Your task to perform on an android device: allow notifications from all sites in the chrome app Image 0: 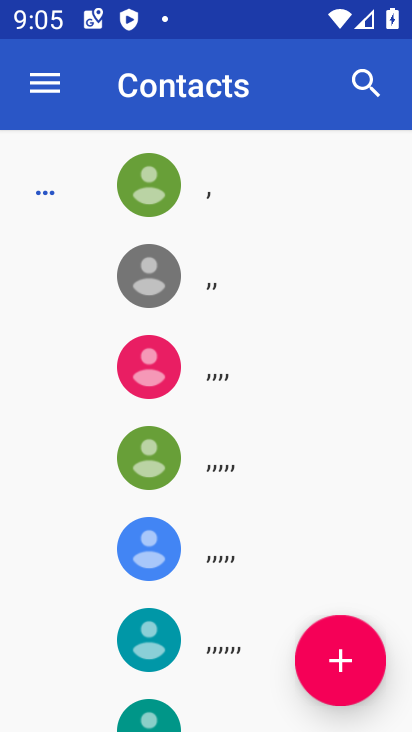
Step 0: press home button
Your task to perform on an android device: allow notifications from all sites in the chrome app Image 1: 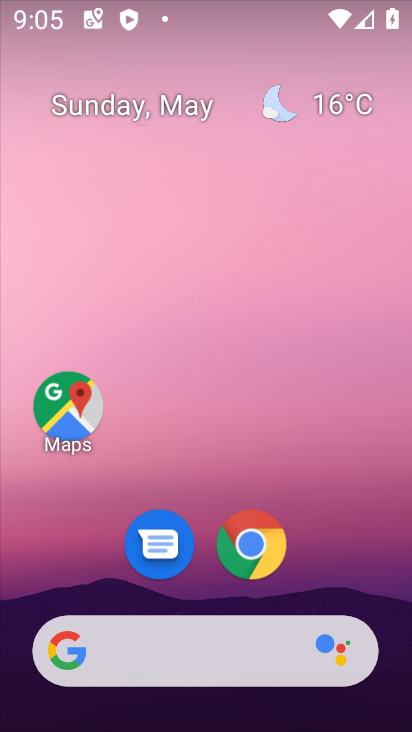
Step 1: click (241, 562)
Your task to perform on an android device: allow notifications from all sites in the chrome app Image 2: 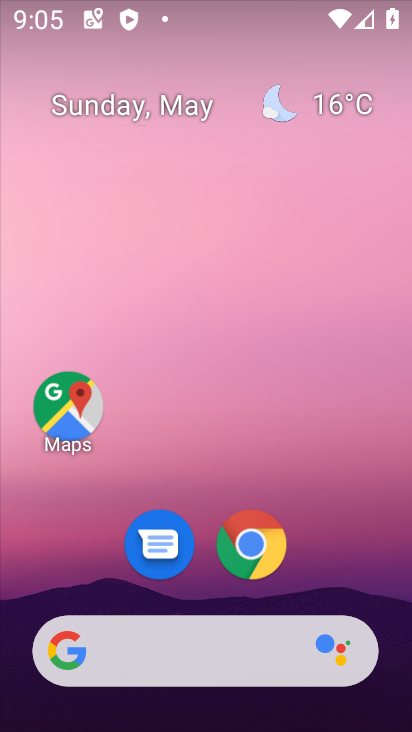
Step 2: click (257, 570)
Your task to perform on an android device: allow notifications from all sites in the chrome app Image 3: 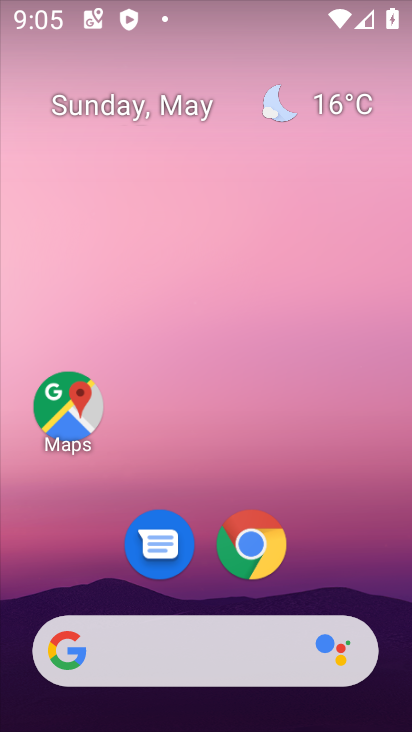
Step 3: click (257, 568)
Your task to perform on an android device: allow notifications from all sites in the chrome app Image 4: 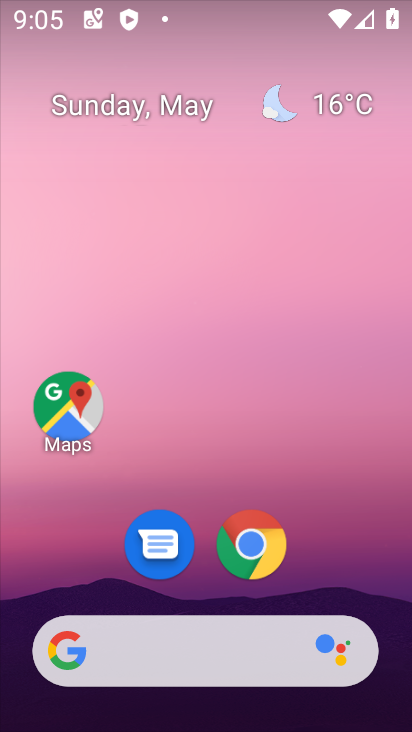
Step 4: click (255, 550)
Your task to perform on an android device: allow notifications from all sites in the chrome app Image 5: 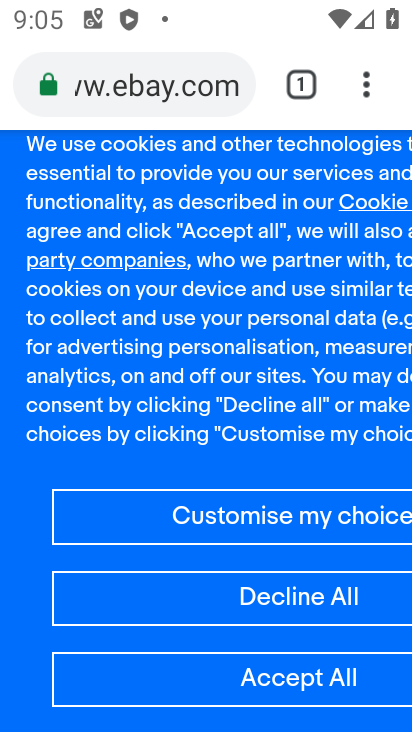
Step 5: click (367, 85)
Your task to perform on an android device: allow notifications from all sites in the chrome app Image 6: 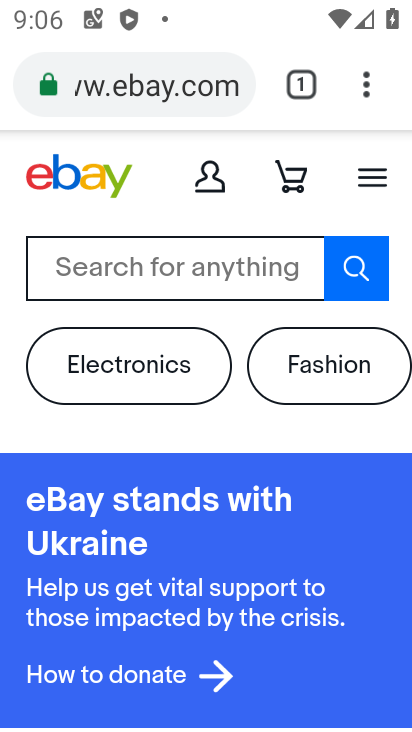
Step 6: click (371, 98)
Your task to perform on an android device: allow notifications from all sites in the chrome app Image 7: 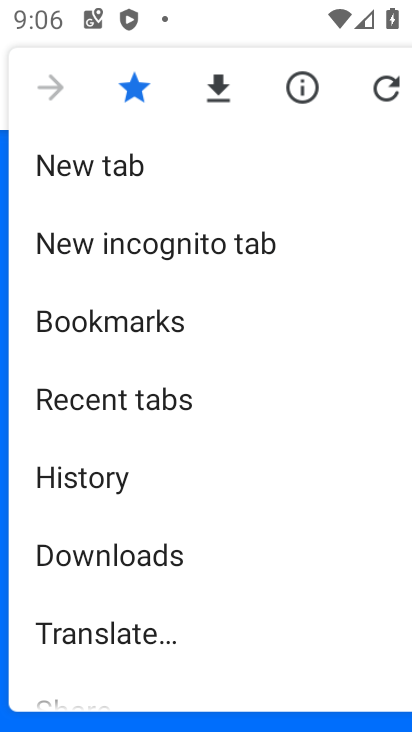
Step 7: drag from (168, 586) to (147, 367)
Your task to perform on an android device: allow notifications from all sites in the chrome app Image 8: 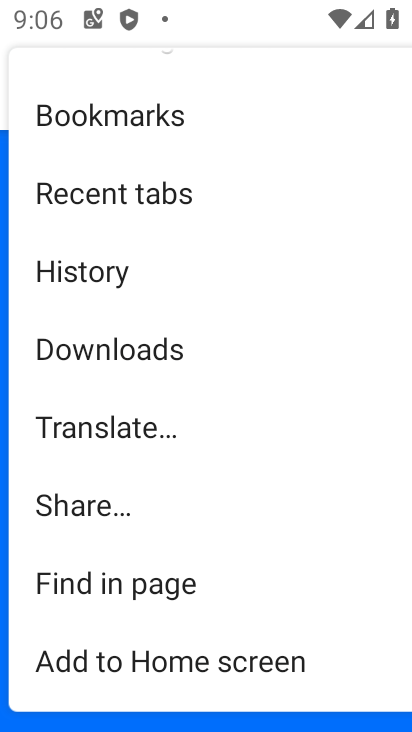
Step 8: drag from (152, 645) to (135, 355)
Your task to perform on an android device: allow notifications from all sites in the chrome app Image 9: 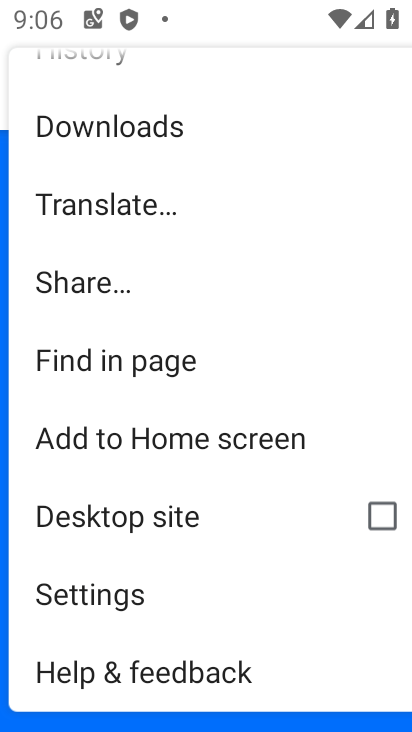
Step 9: click (109, 602)
Your task to perform on an android device: allow notifications from all sites in the chrome app Image 10: 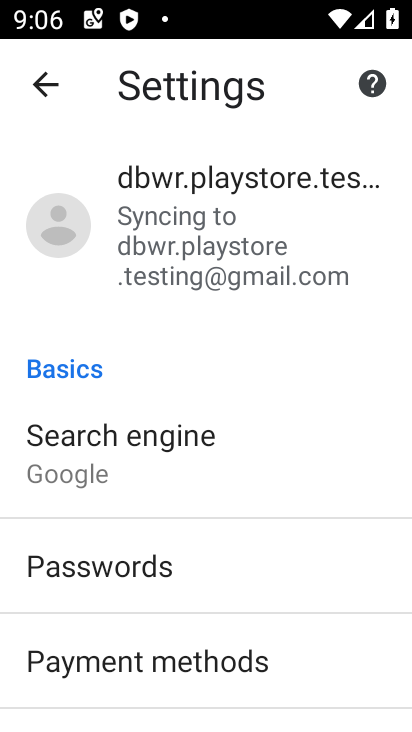
Step 10: drag from (141, 656) to (114, 414)
Your task to perform on an android device: allow notifications from all sites in the chrome app Image 11: 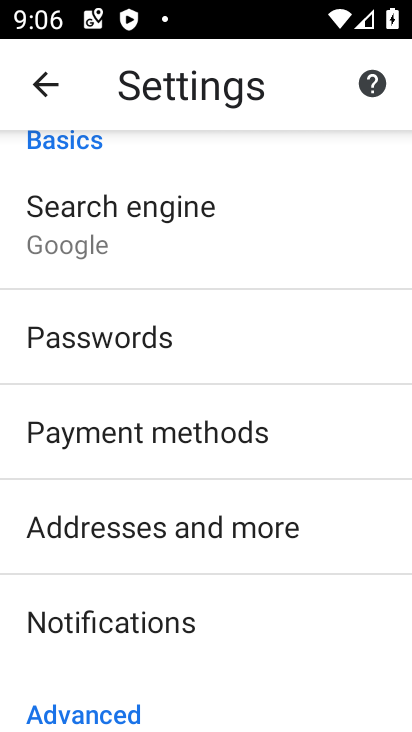
Step 11: drag from (169, 633) to (188, 342)
Your task to perform on an android device: allow notifications from all sites in the chrome app Image 12: 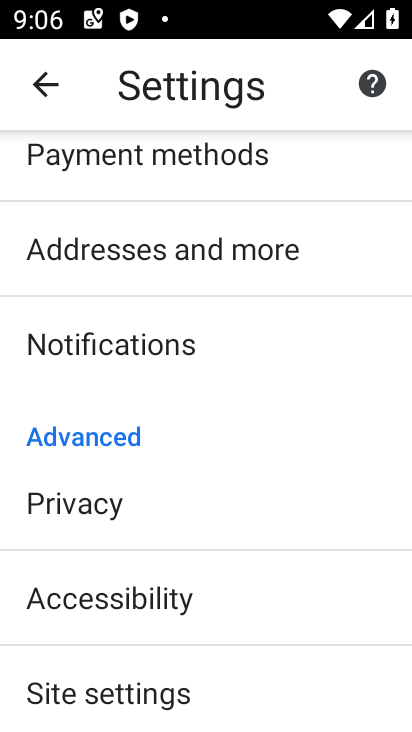
Step 12: drag from (197, 639) to (170, 436)
Your task to perform on an android device: allow notifications from all sites in the chrome app Image 13: 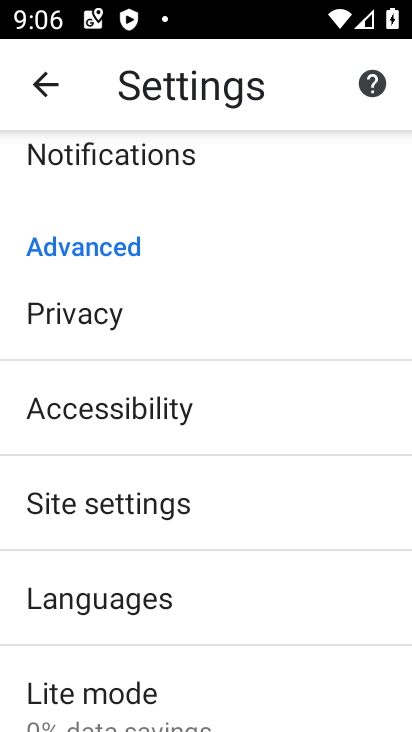
Step 13: click (140, 517)
Your task to perform on an android device: allow notifications from all sites in the chrome app Image 14: 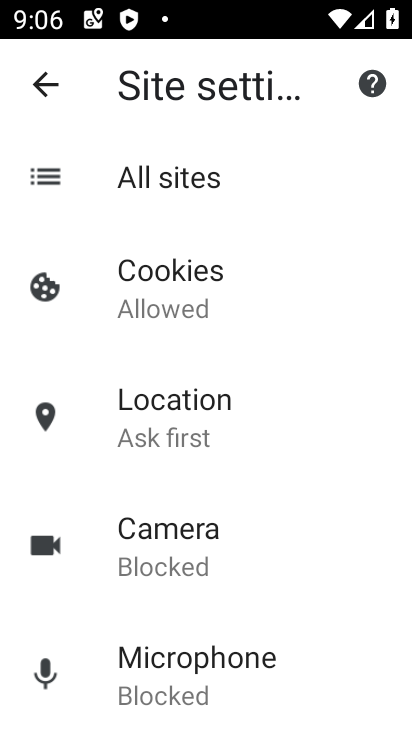
Step 14: click (174, 188)
Your task to perform on an android device: allow notifications from all sites in the chrome app Image 15: 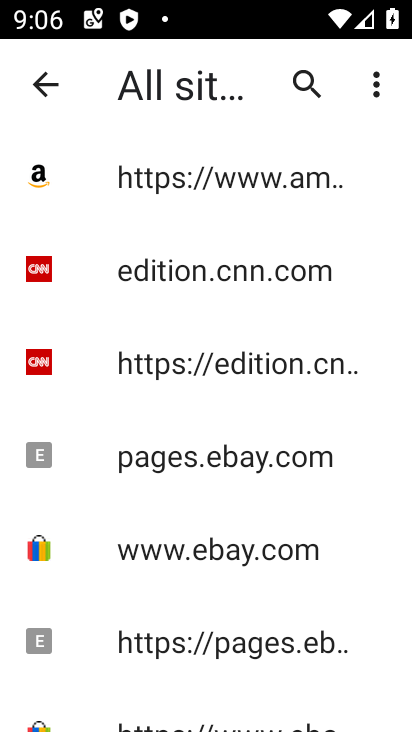
Step 15: drag from (164, 598) to (154, 348)
Your task to perform on an android device: allow notifications from all sites in the chrome app Image 16: 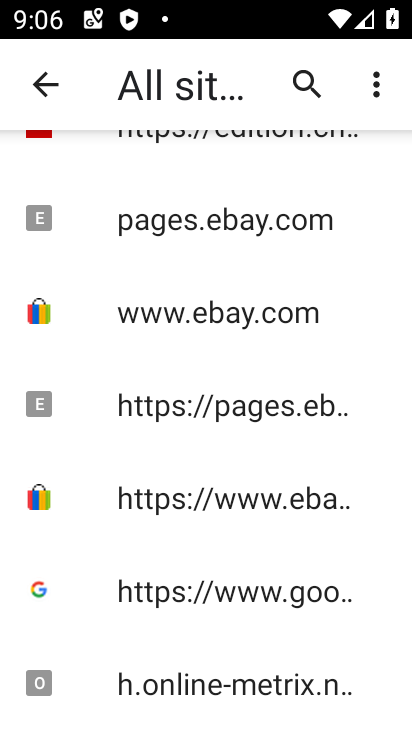
Step 16: click (182, 600)
Your task to perform on an android device: allow notifications from all sites in the chrome app Image 17: 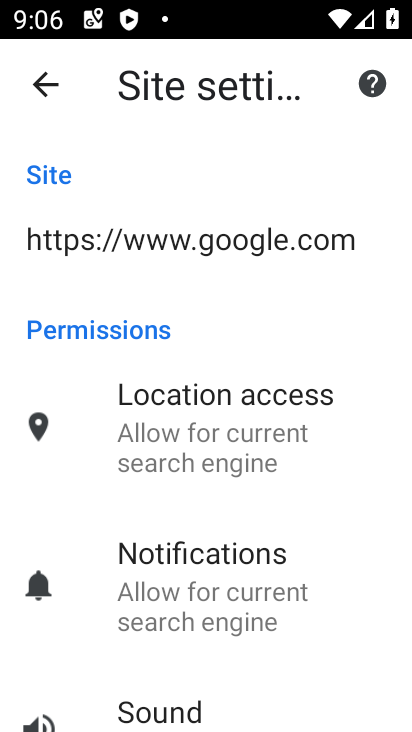
Step 17: click (206, 609)
Your task to perform on an android device: allow notifications from all sites in the chrome app Image 18: 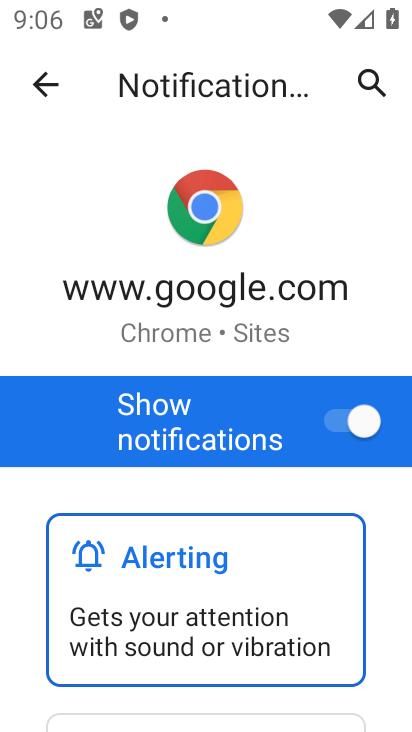
Step 18: task complete